Your task to perform on an android device: Show me popular videos on Youtube Image 0: 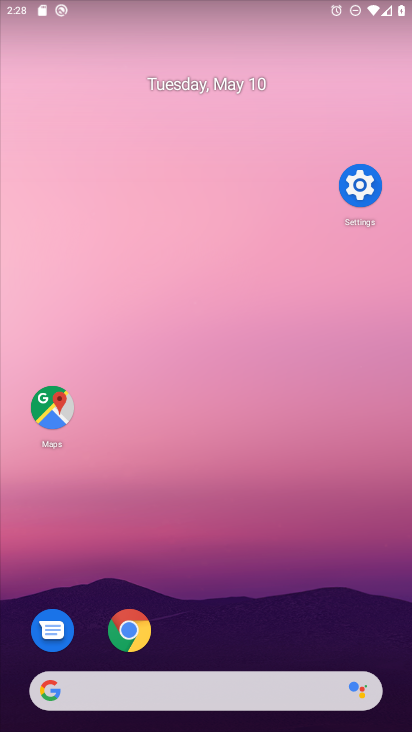
Step 0: drag from (328, 637) to (199, 131)
Your task to perform on an android device: Show me popular videos on Youtube Image 1: 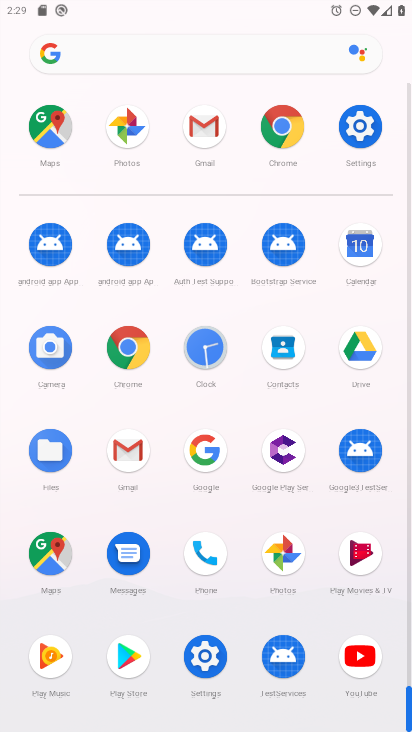
Step 1: click (362, 651)
Your task to perform on an android device: Show me popular videos on Youtube Image 2: 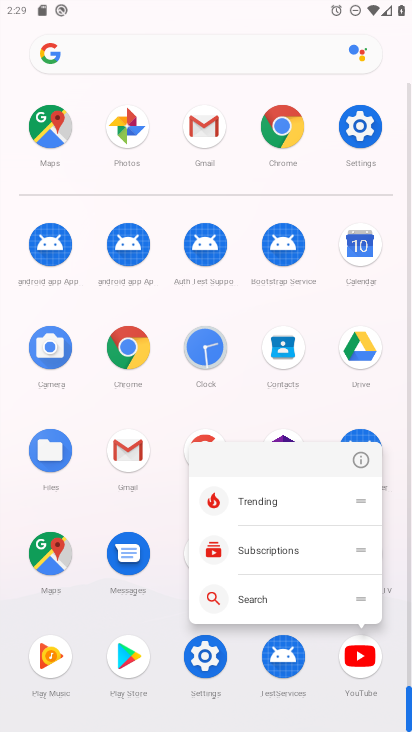
Step 2: click (356, 654)
Your task to perform on an android device: Show me popular videos on Youtube Image 3: 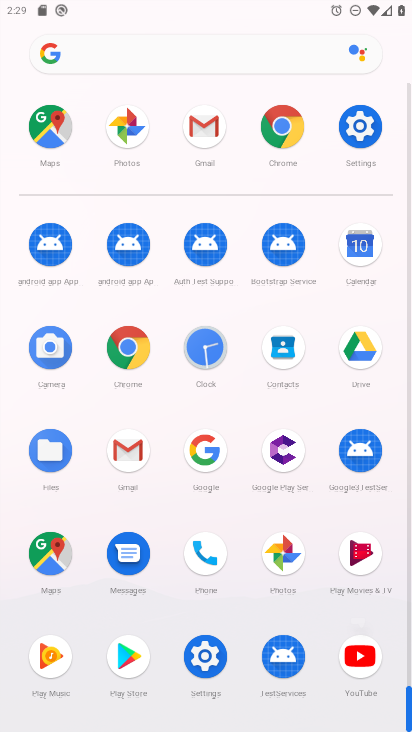
Step 3: click (355, 658)
Your task to perform on an android device: Show me popular videos on Youtube Image 4: 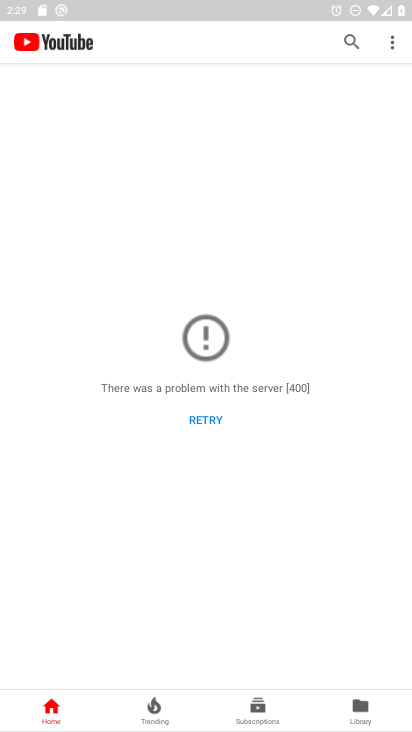
Step 4: task complete